Your task to perform on an android device: set the stopwatch Image 0: 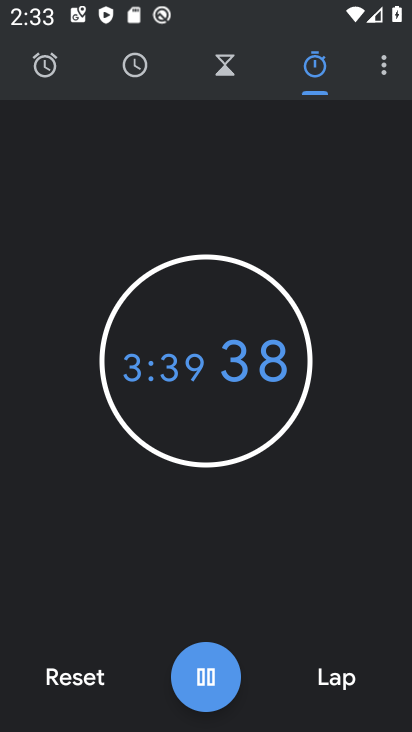
Step 0: press back button
Your task to perform on an android device: set the stopwatch Image 1: 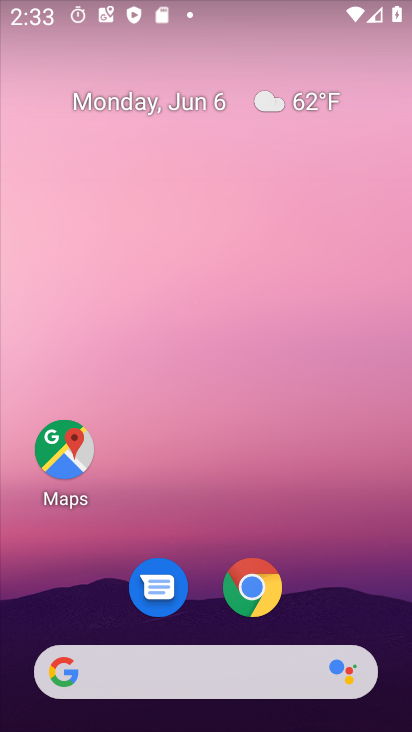
Step 1: drag from (361, 570) to (251, 21)
Your task to perform on an android device: set the stopwatch Image 2: 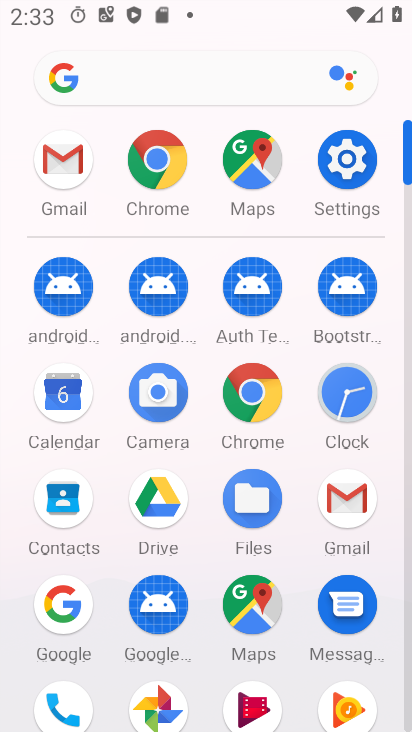
Step 2: click (344, 395)
Your task to perform on an android device: set the stopwatch Image 3: 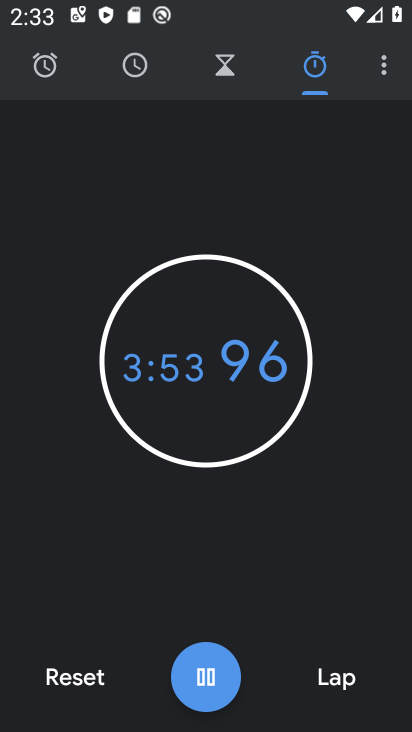
Step 3: click (66, 73)
Your task to perform on an android device: set the stopwatch Image 4: 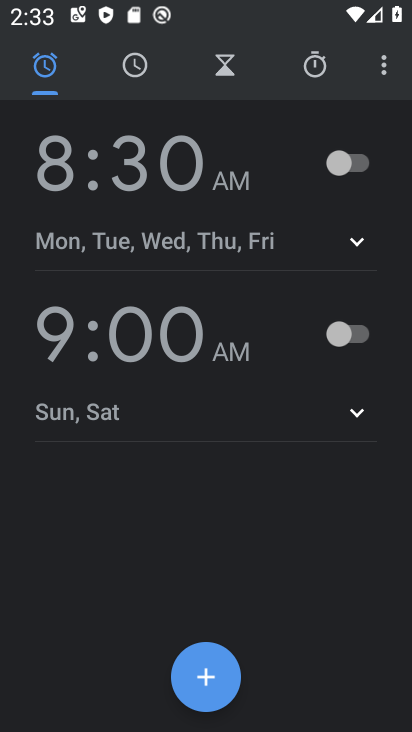
Step 4: click (327, 56)
Your task to perform on an android device: set the stopwatch Image 5: 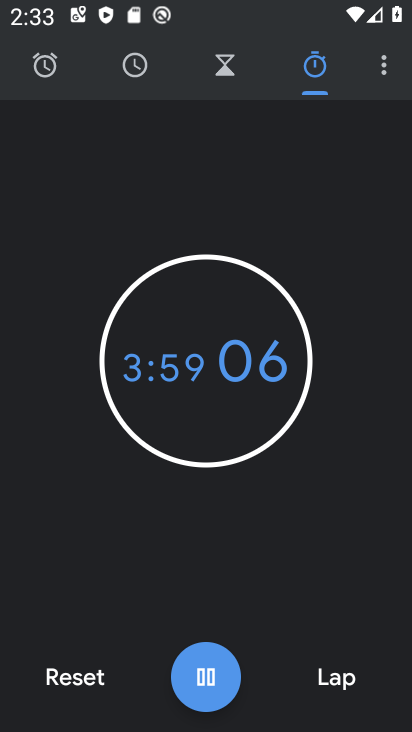
Step 5: click (97, 686)
Your task to perform on an android device: set the stopwatch Image 6: 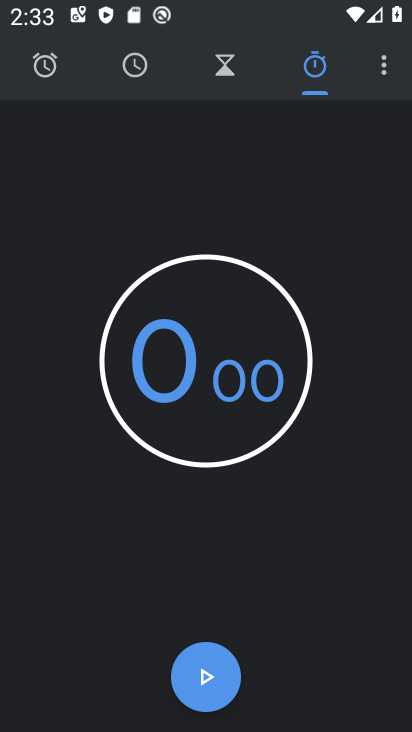
Step 6: click (204, 673)
Your task to perform on an android device: set the stopwatch Image 7: 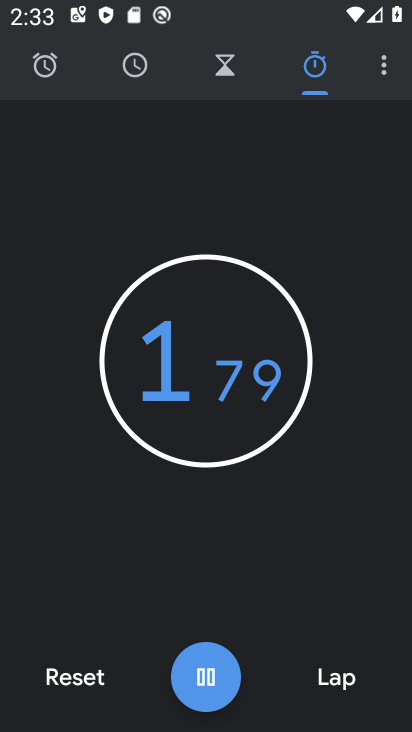
Step 7: task complete